Your task to perform on an android device: Open Yahoo.com Image 0: 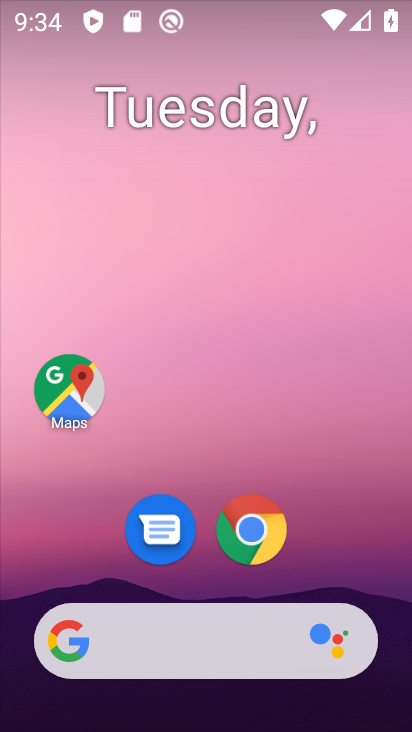
Step 0: drag from (203, 603) to (188, 265)
Your task to perform on an android device: Open Yahoo.com Image 1: 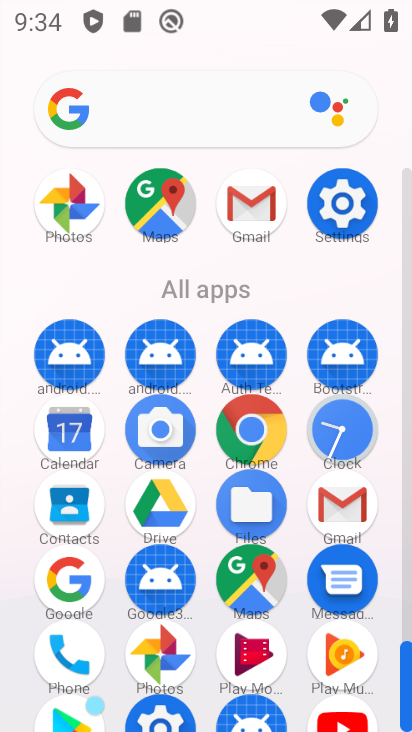
Step 1: click (57, 571)
Your task to perform on an android device: Open Yahoo.com Image 2: 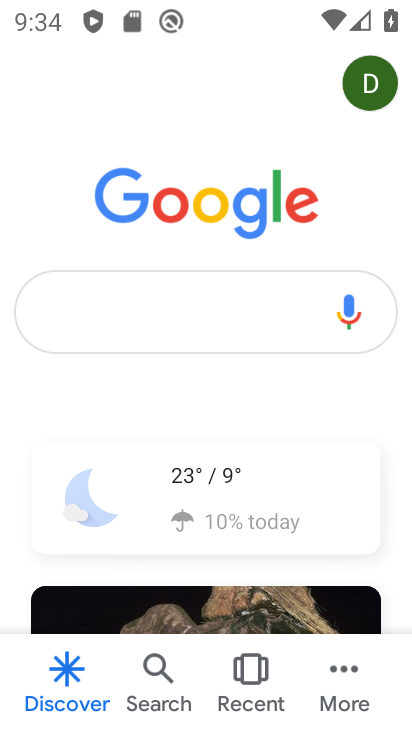
Step 2: click (116, 315)
Your task to perform on an android device: Open Yahoo.com Image 3: 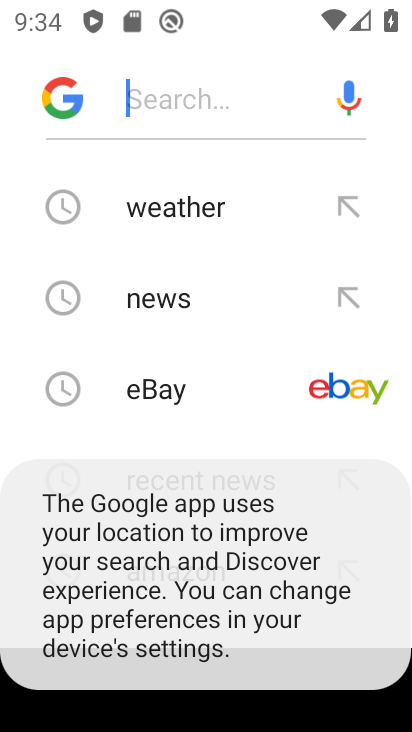
Step 3: drag from (154, 429) to (155, 167)
Your task to perform on an android device: Open Yahoo.com Image 4: 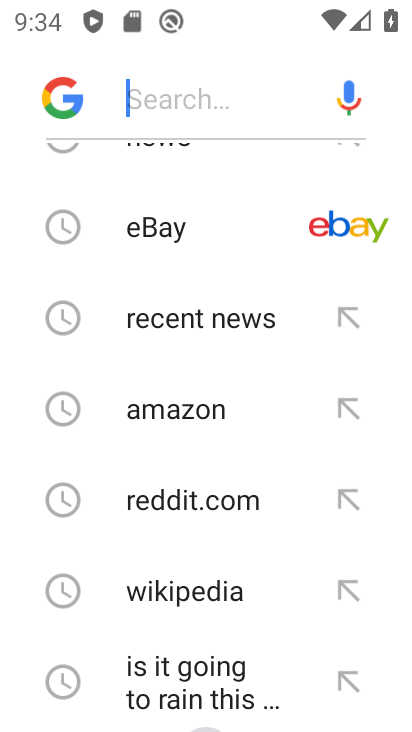
Step 4: drag from (143, 450) to (149, 235)
Your task to perform on an android device: Open Yahoo.com Image 5: 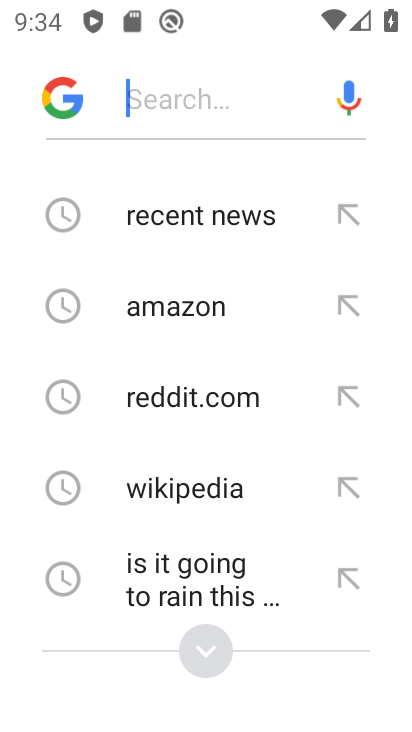
Step 5: click (212, 652)
Your task to perform on an android device: Open Yahoo.com Image 6: 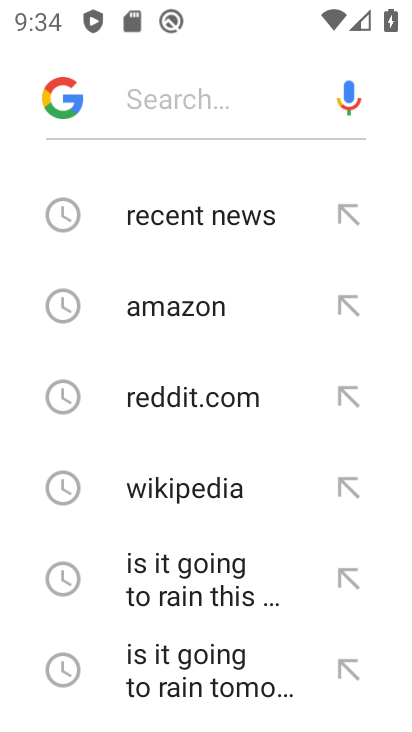
Step 6: drag from (212, 700) to (210, 436)
Your task to perform on an android device: Open Yahoo.com Image 7: 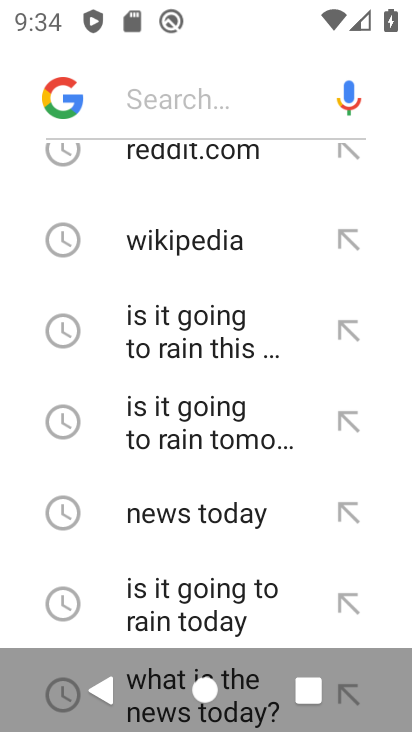
Step 7: drag from (178, 618) to (178, 381)
Your task to perform on an android device: Open Yahoo.com Image 8: 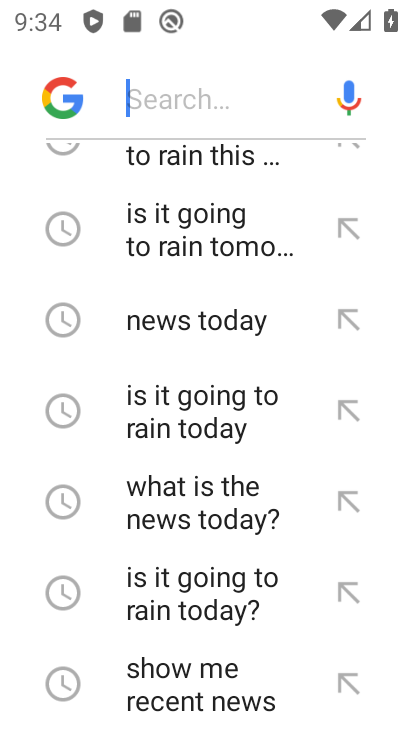
Step 8: drag from (217, 164) to (230, 589)
Your task to perform on an android device: Open Yahoo.com Image 9: 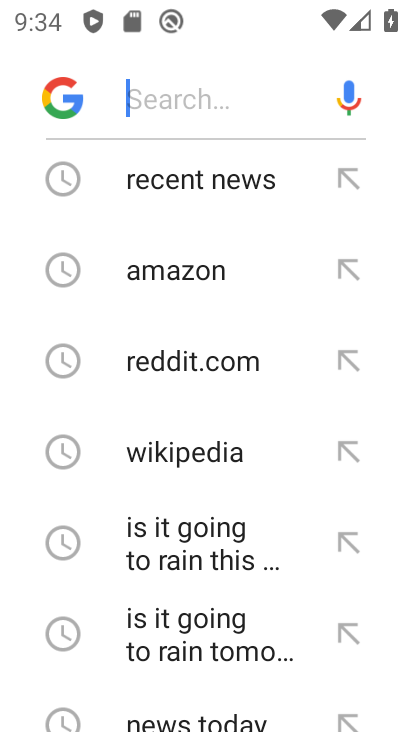
Step 9: drag from (216, 219) to (207, 591)
Your task to perform on an android device: Open Yahoo.com Image 10: 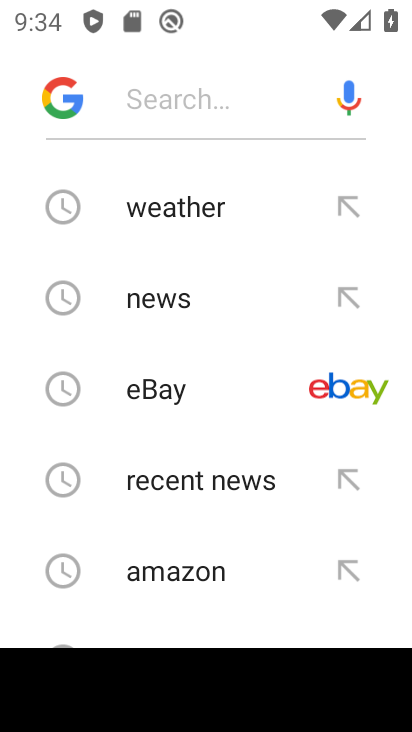
Step 10: drag from (205, 233) to (223, 587)
Your task to perform on an android device: Open Yahoo.com Image 11: 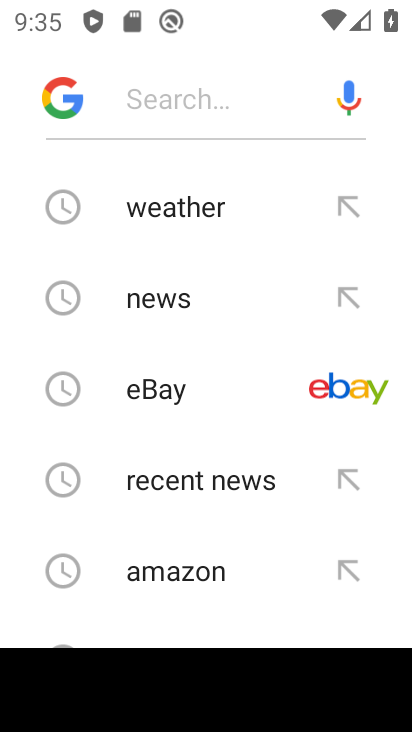
Step 11: type "yahoo.com"
Your task to perform on an android device: Open Yahoo.com Image 12: 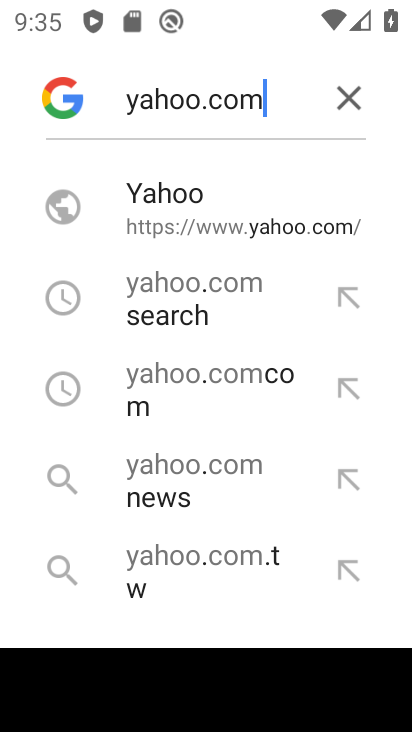
Step 12: click (166, 210)
Your task to perform on an android device: Open Yahoo.com Image 13: 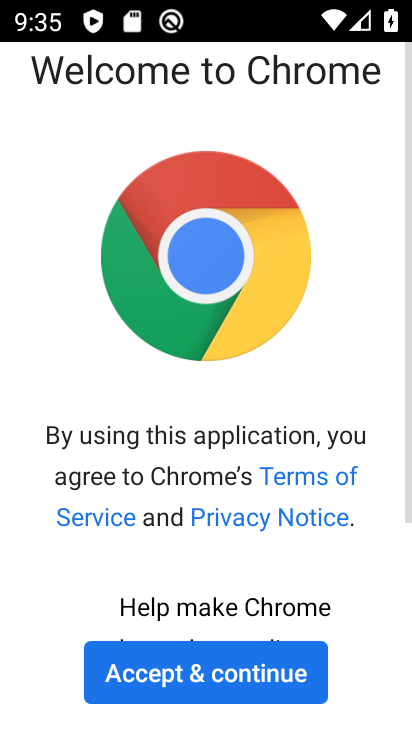
Step 13: click (247, 690)
Your task to perform on an android device: Open Yahoo.com Image 14: 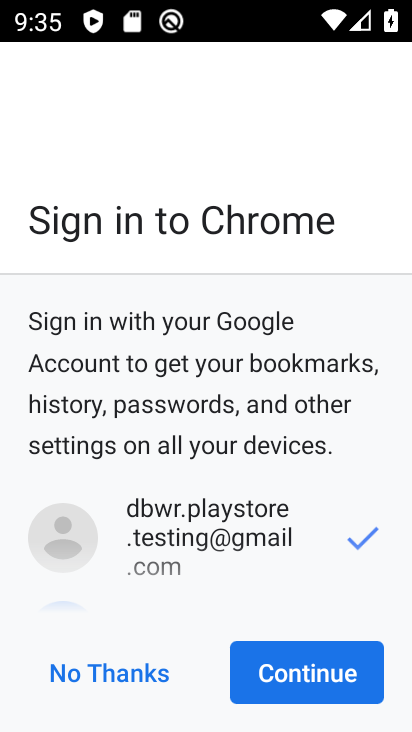
Step 14: click (281, 663)
Your task to perform on an android device: Open Yahoo.com Image 15: 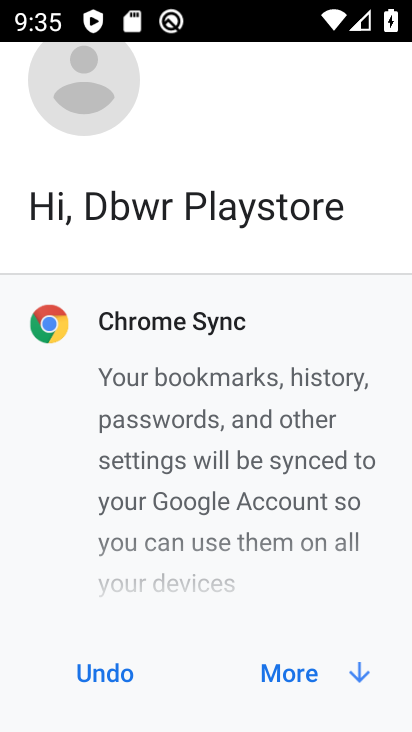
Step 15: click (290, 683)
Your task to perform on an android device: Open Yahoo.com Image 16: 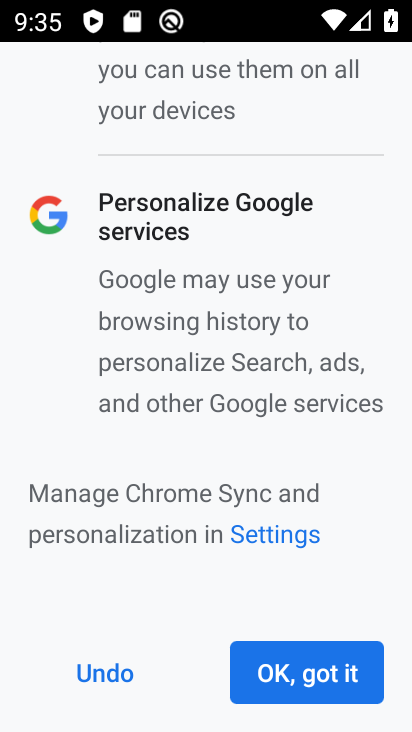
Step 16: click (290, 683)
Your task to perform on an android device: Open Yahoo.com Image 17: 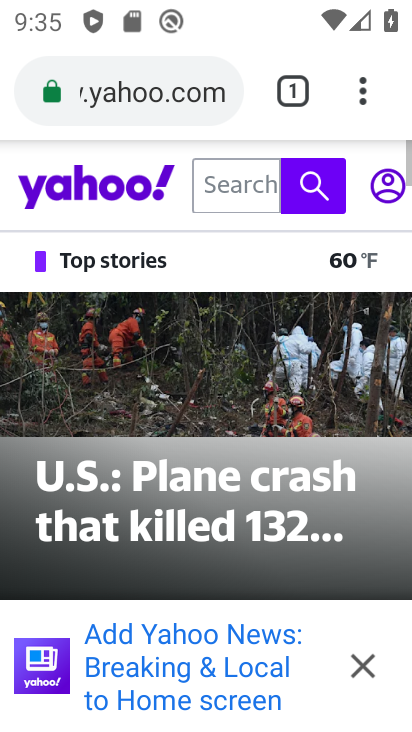
Step 17: click (363, 670)
Your task to perform on an android device: Open Yahoo.com Image 18: 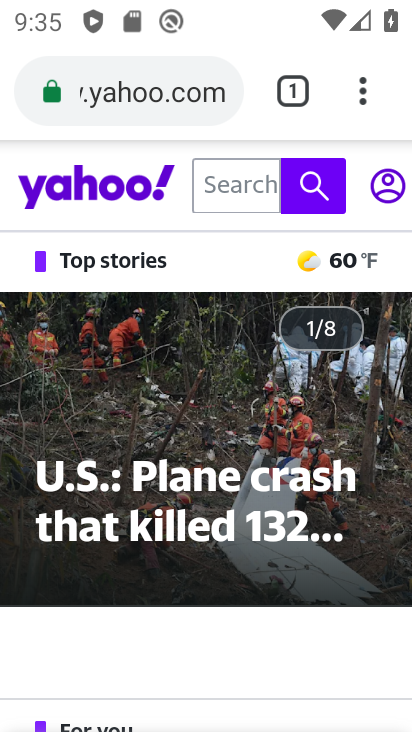
Step 18: task complete